Your task to perform on an android device: When is my next appointment? Image 0: 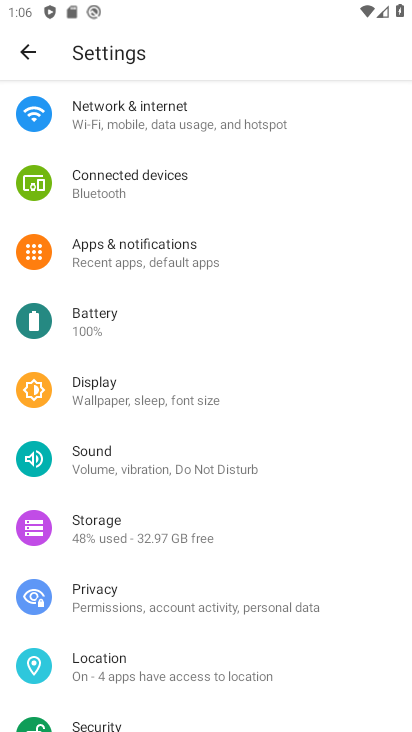
Step 0: press back button
Your task to perform on an android device: When is my next appointment? Image 1: 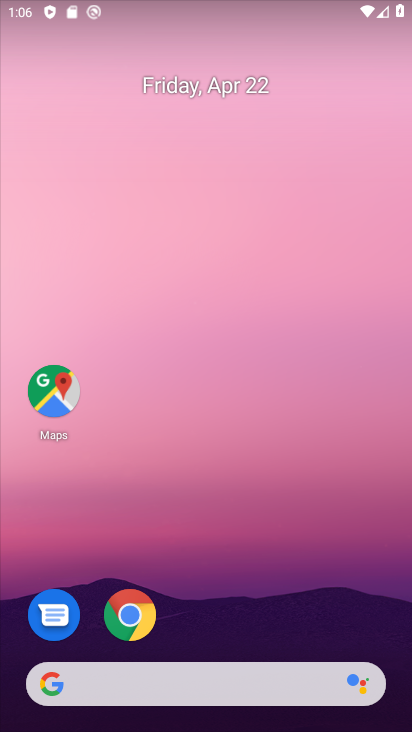
Step 1: drag from (252, 590) to (290, 93)
Your task to perform on an android device: When is my next appointment? Image 2: 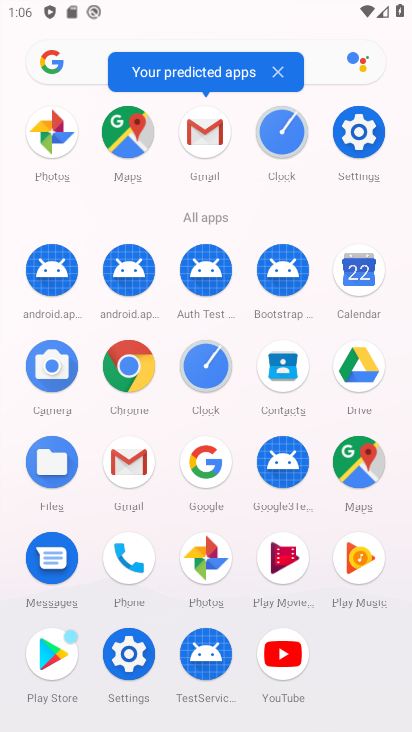
Step 2: click (356, 275)
Your task to perform on an android device: When is my next appointment? Image 3: 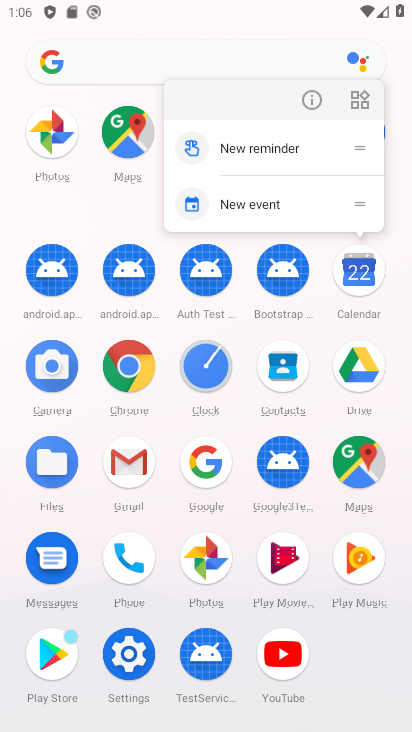
Step 3: click (356, 275)
Your task to perform on an android device: When is my next appointment? Image 4: 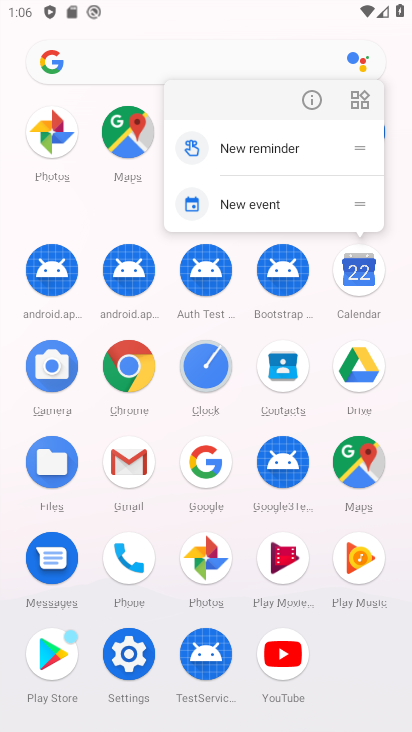
Step 4: click (364, 271)
Your task to perform on an android device: When is my next appointment? Image 5: 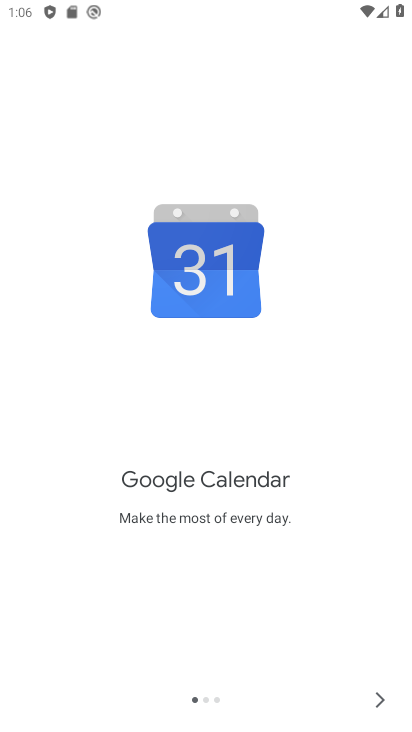
Step 5: click (384, 700)
Your task to perform on an android device: When is my next appointment? Image 6: 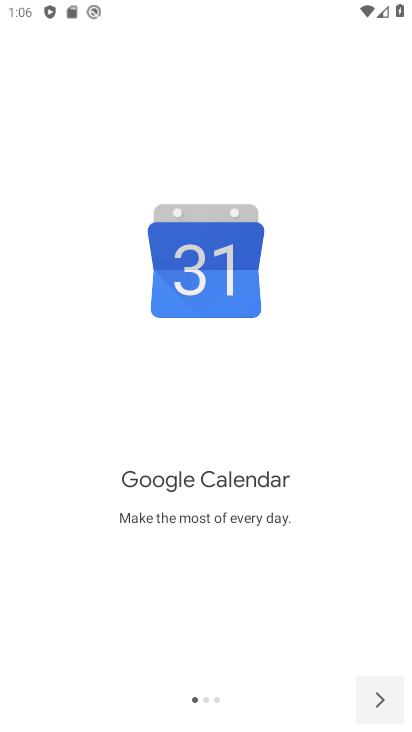
Step 6: click (386, 700)
Your task to perform on an android device: When is my next appointment? Image 7: 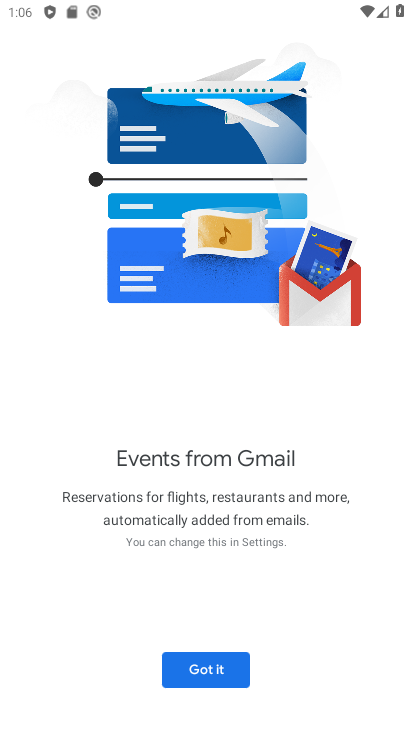
Step 7: click (381, 699)
Your task to perform on an android device: When is my next appointment? Image 8: 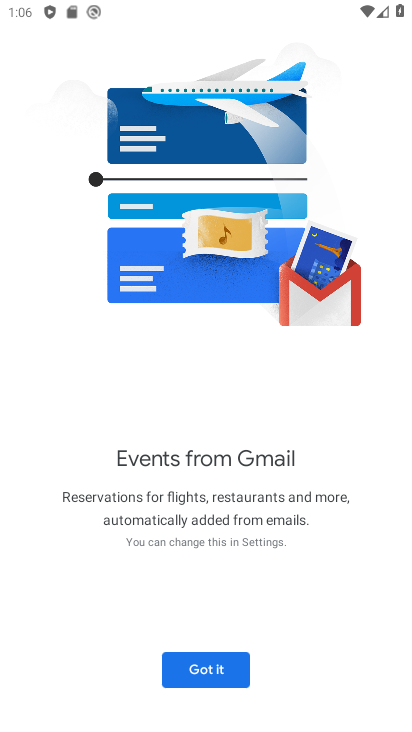
Step 8: click (212, 679)
Your task to perform on an android device: When is my next appointment? Image 9: 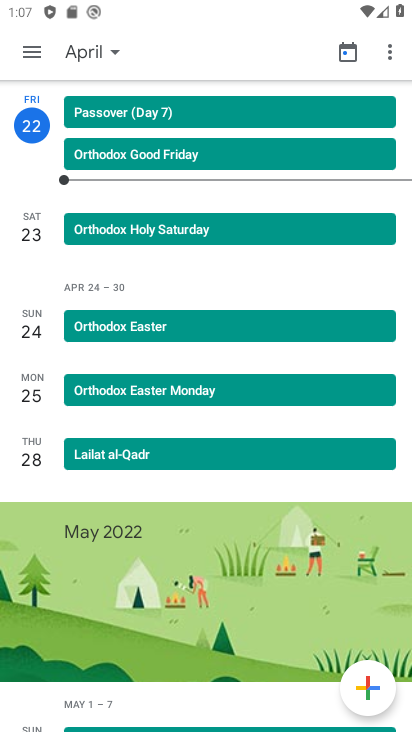
Step 9: task complete